Your task to perform on an android device: Show the shopping cart on amazon.com. Add "logitech g502" to the cart on amazon.com Image 0: 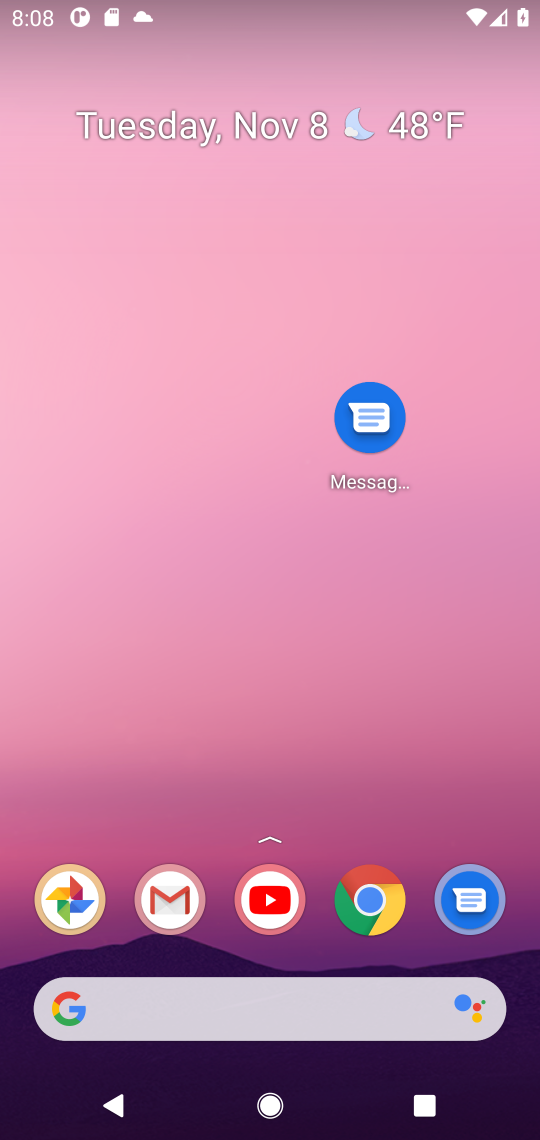
Step 0: drag from (175, 991) to (218, 281)
Your task to perform on an android device: Show the shopping cart on amazon.com. Add "logitech g502" to the cart on amazon.com Image 1: 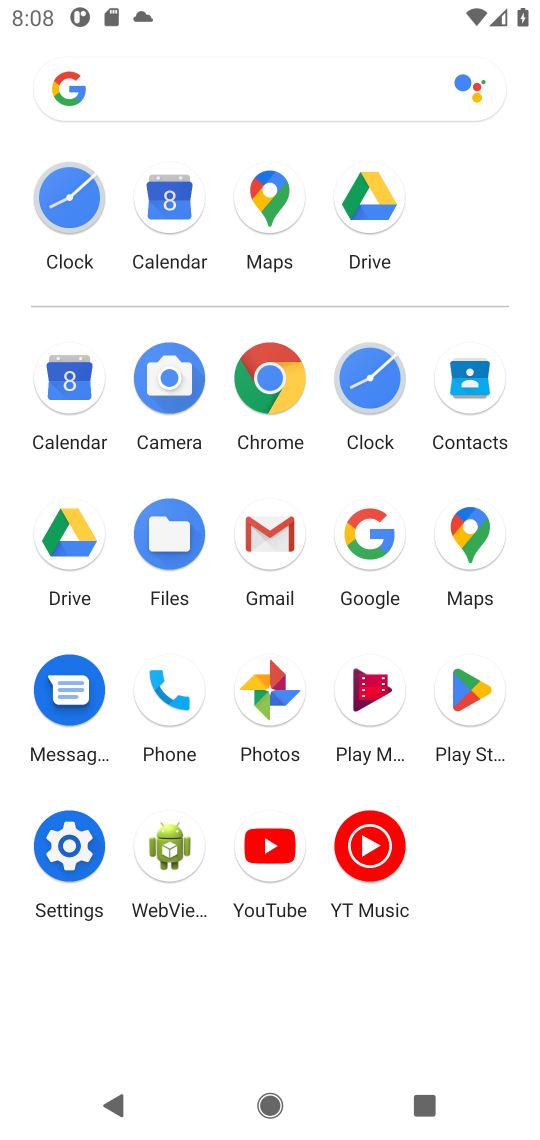
Step 1: click (364, 519)
Your task to perform on an android device: Show the shopping cart on amazon.com. Add "logitech g502" to the cart on amazon.com Image 2: 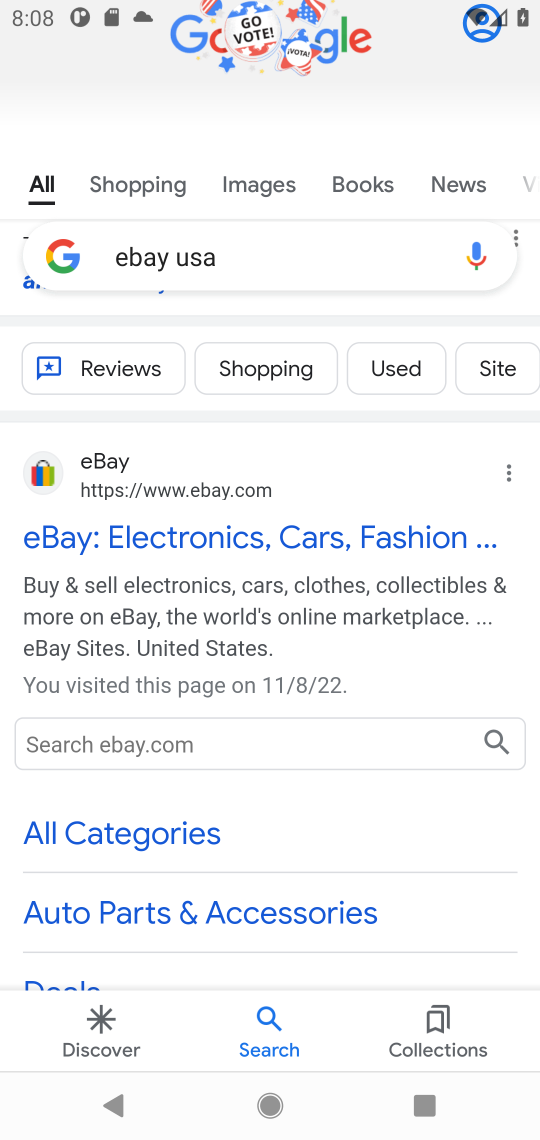
Step 2: click (275, 261)
Your task to perform on an android device: Show the shopping cart on amazon.com. Add "logitech g502" to the cart on amazon.com Image 3: 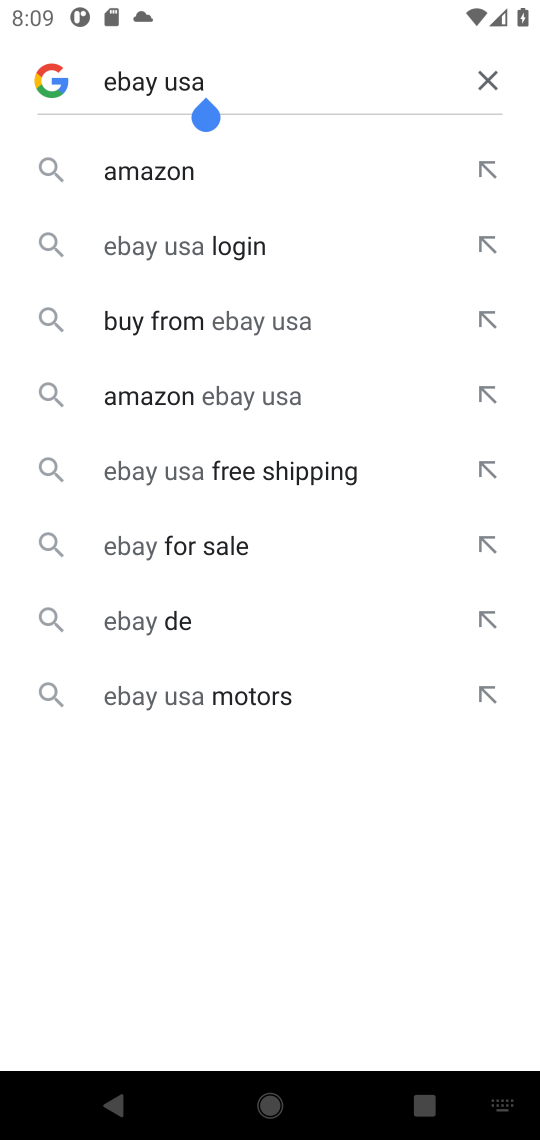
Step 3: click (495, 88)
Your task to perform on an android device: Show the shopping cart on amazon.com. Add "logitech g502" to the cart on amazon.com Image 4: 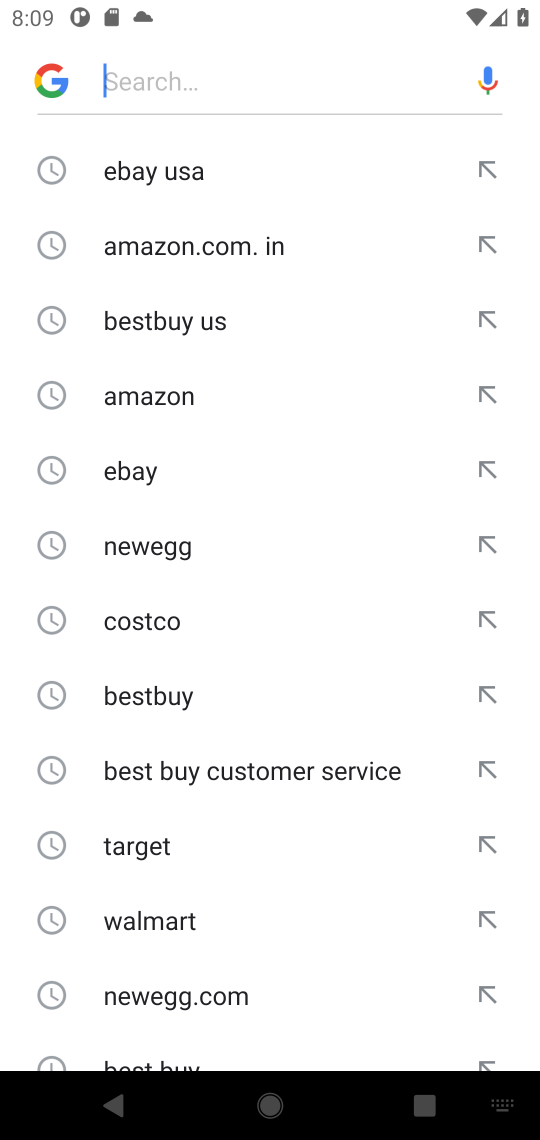
Step 4: click (225, 62)
Your task to perform on an android device: Show the shopping cart on amazon.com. Add "logitech g502" to the cart on amazon.com Image 5: 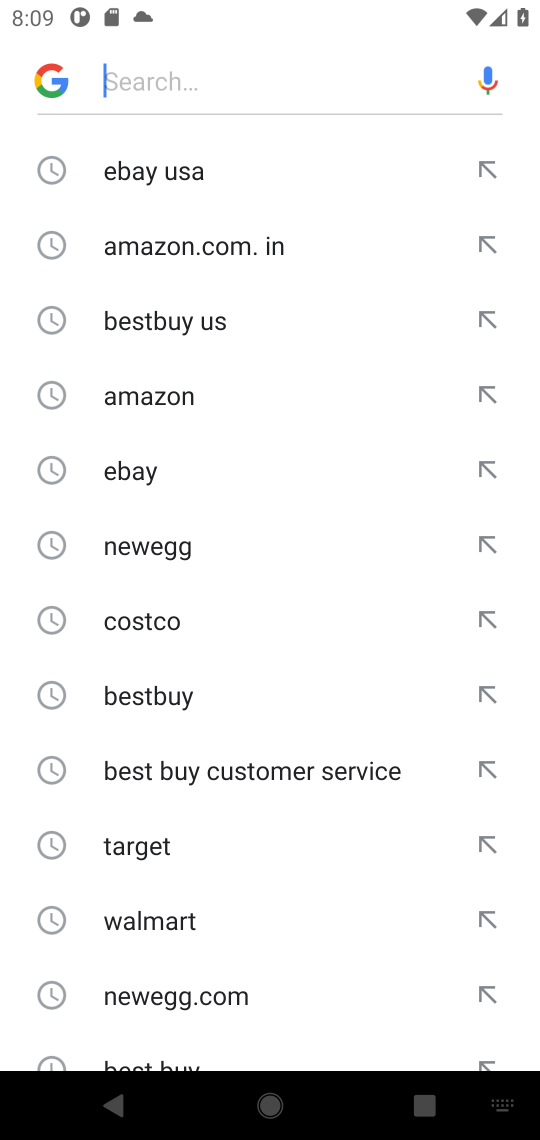
Step 5: type "amazon "
Your task to perform on an android device: Show the shopping cart on amazon.com. Add "logitech g502" to the cart on amazon.com Image 6: 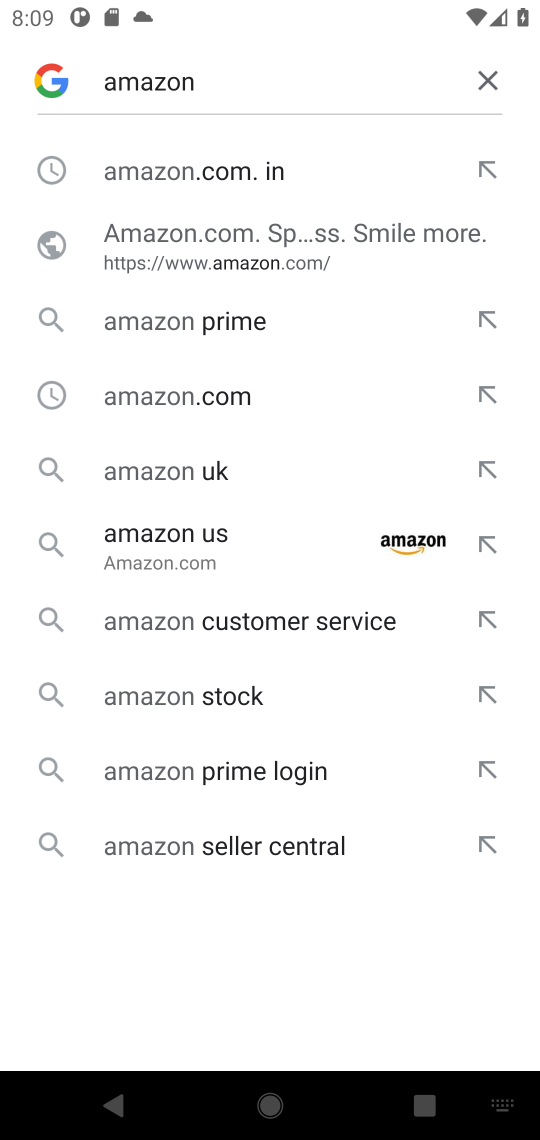
Step 6: click (157, 168)
Your task to perform on an android device: Show the shopping cart on amazon.com. Add "logitech g502" to the cart on amazon.com Image 7: 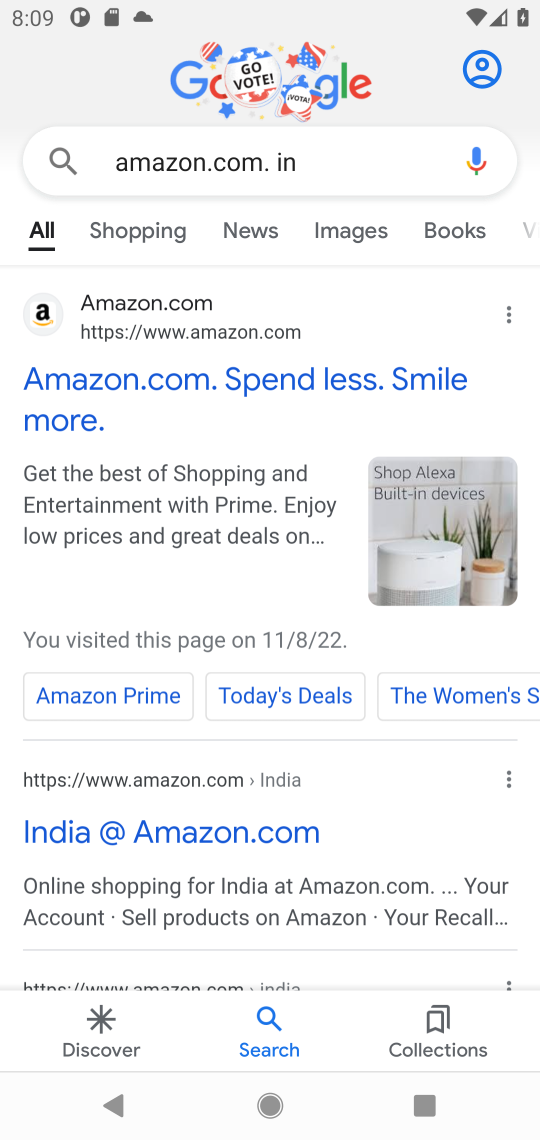
Step 7: click (36, 314)
Your task to perform on an android device: Show the shopping cart on amazon.com. Add "logitech g502" to the cart on amazon.com Image 8: 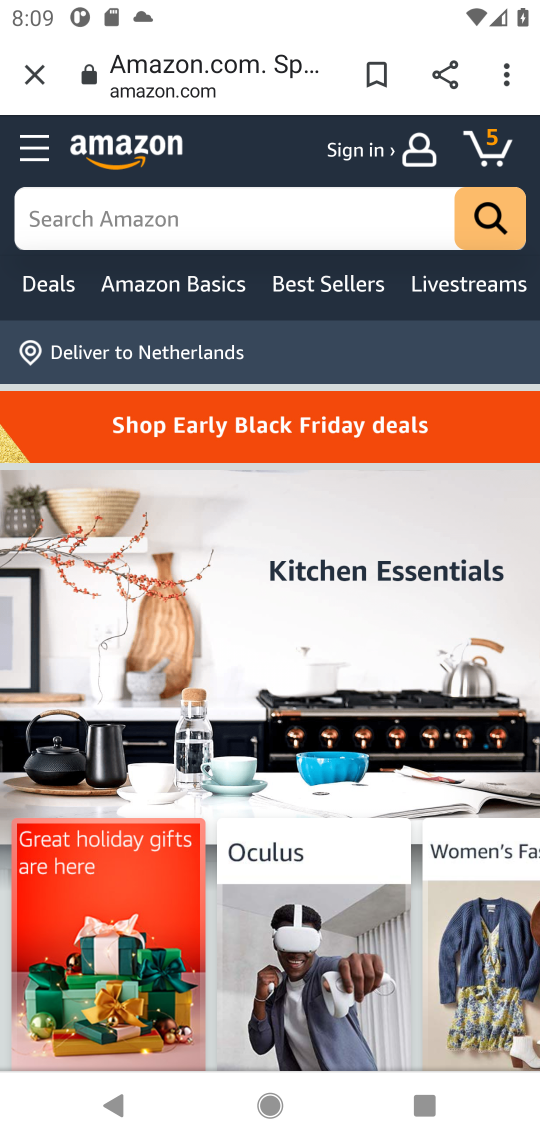
Step 8: click (136, 199)
Your task to perform on an android device: Show the shopping cart on amazon.com. Add "logitech g502" to the cart on amazon.com Image 9: 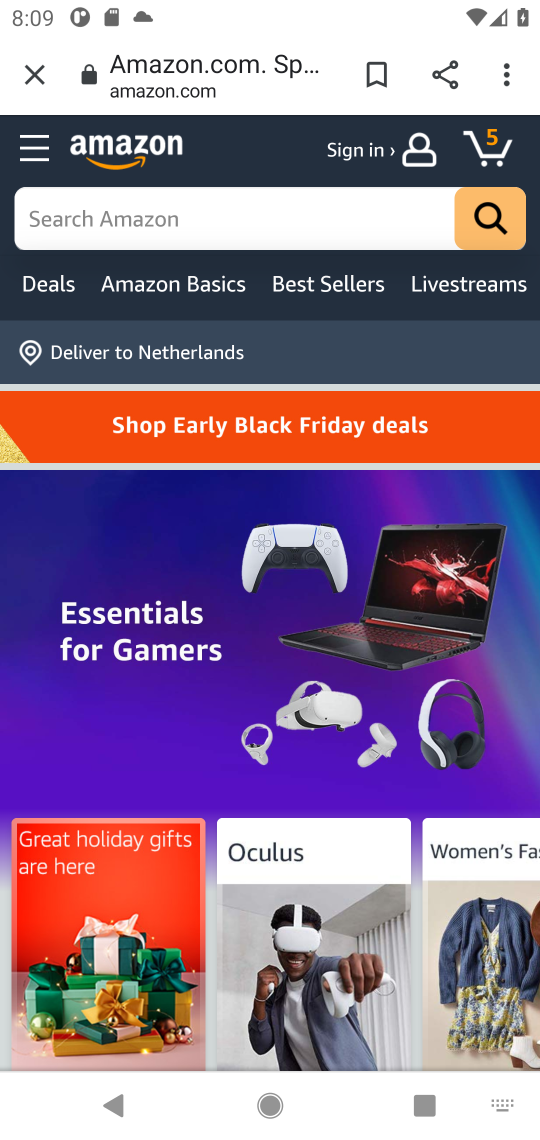
Step 9: click (139, 202)
Your task to perform on an android device: Show the shopping cart on amazon.com. Add "logitech g502" to the cart on amazon.com Image 10: 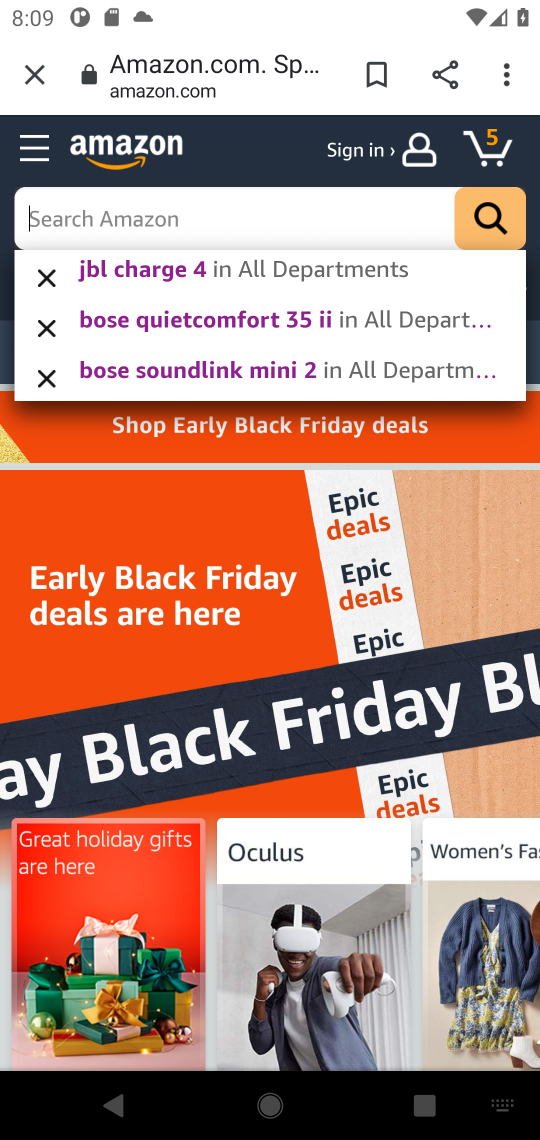
Step 10: type "logitech g502 "
Your task to perform on an android device: Show the shopping cart on amazon.com. Add "logitech g502" to the cart on amazon.com Image 11: 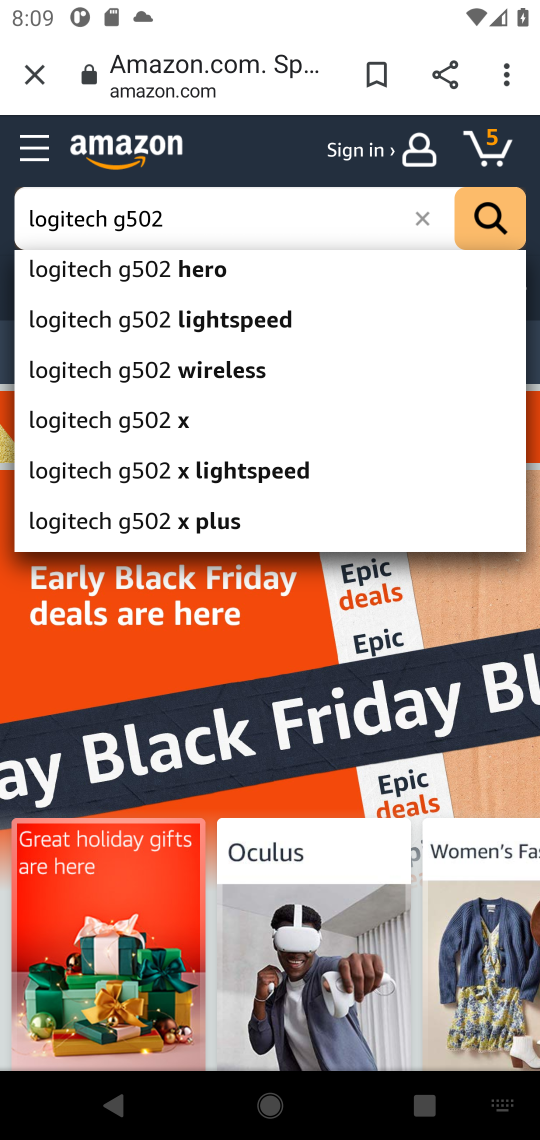
Step 11: click (113, 428)
Your task to perform on an android device: Show the shopping cart on amazon.com. Add "logitech g502" to the cart on amazon.com Image 12: 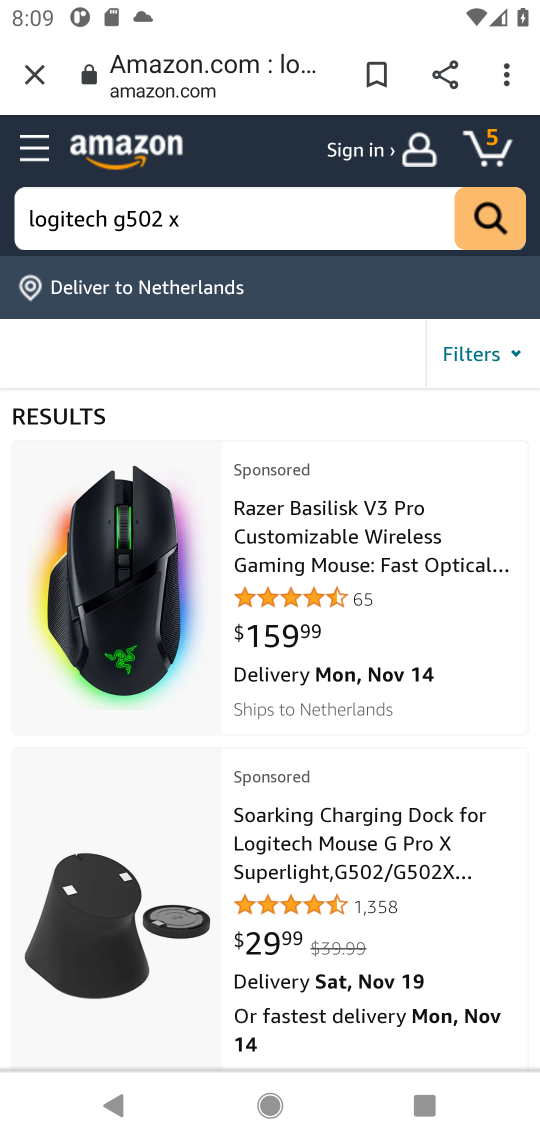
Step 12: click (339, 525)
Your task to perform on an android device: Show the shopping cart on amazon.com. Add "logitech g502" to the cart on amazon.com Image 13: 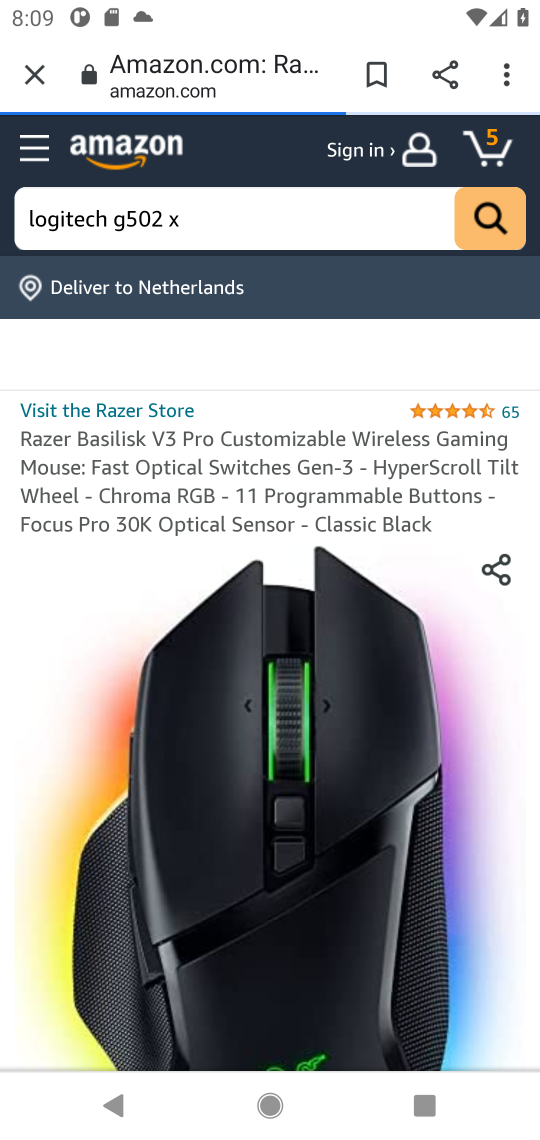
Step 13: drag from (294, 898) to (346, 202)
Your task to perform on an android device: Show the shopping cart on amazon.com. Add "logitech g502" to the cart on amazon.com Image 14: 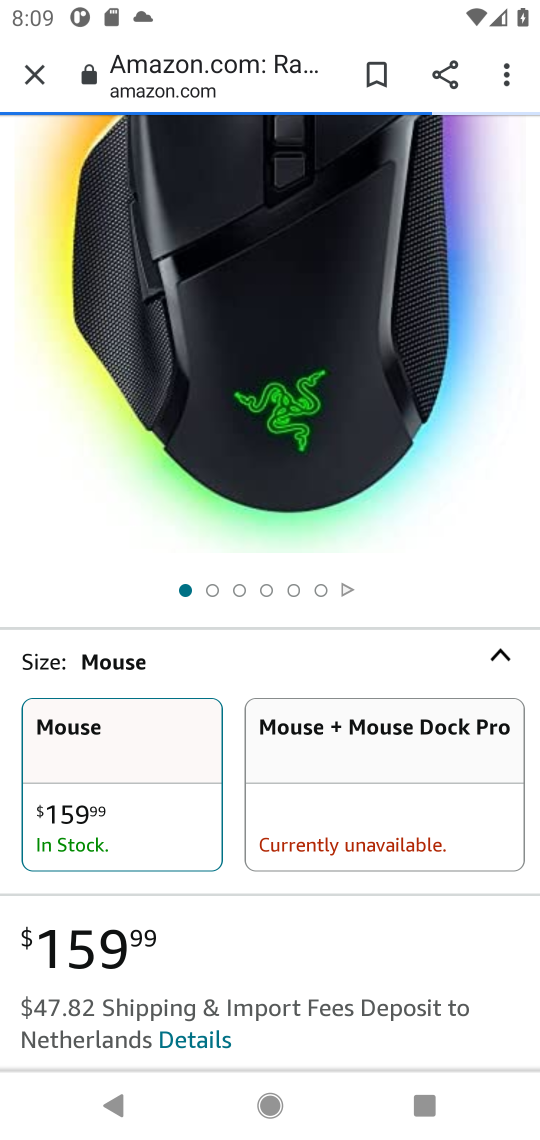
Step 14: drag from (251, 973) to (331, 261)
Your task to perform on an android device: Show the shopping cart on amazon.com. Add "logitech g502" to the cart on amazon.com Image 15: 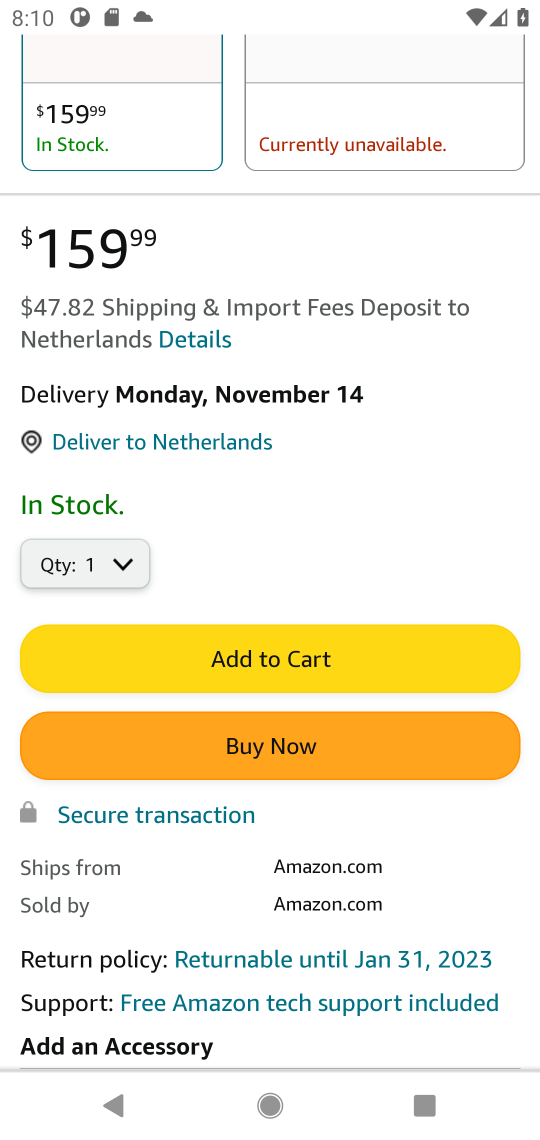
Step 15: click (247, 645)
Your task to perform on an android device: Show the shopping cart on amazon.com. Add "logitech g502" to the cart on amazon.com Image 16: 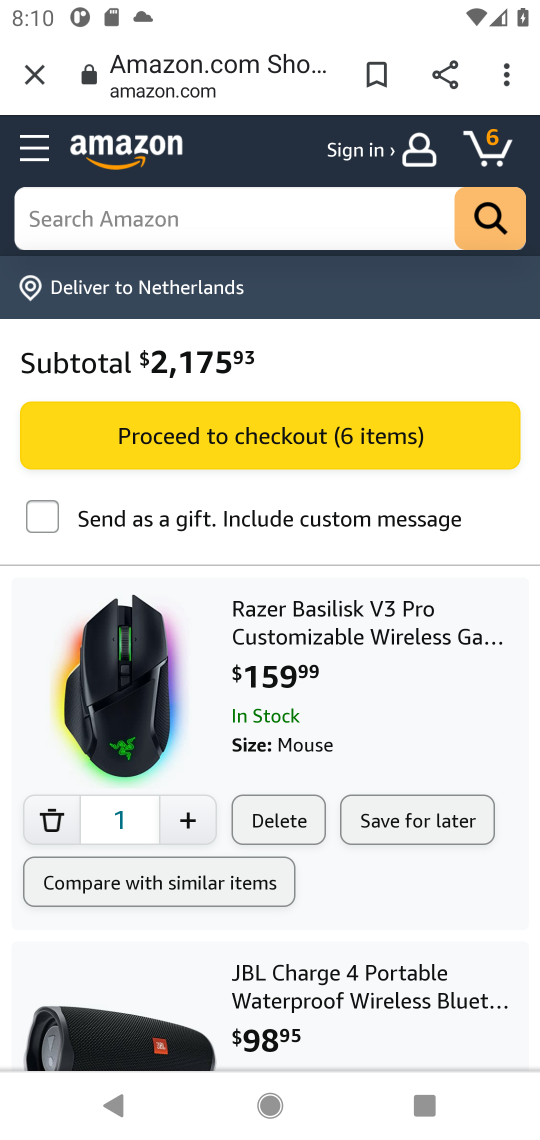
Step 16: task complete